Your task to perform on an android device: turn on data saver in the chrome app Image 0: 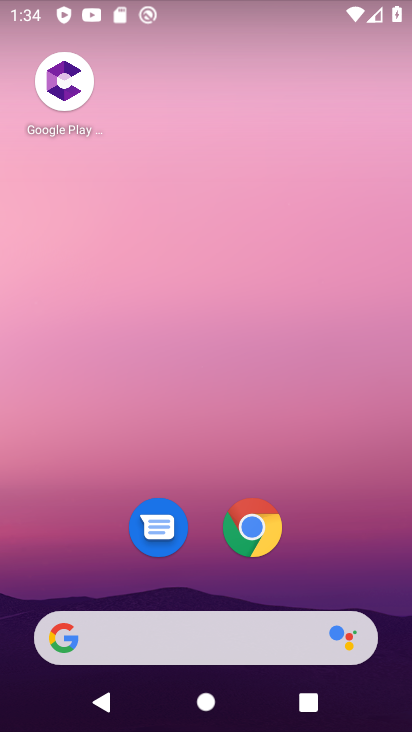
Step 0: drag from (344, 493) to (375, 69)
Your task to perform on an android device: turn on data saver in the chrome app Image 1: 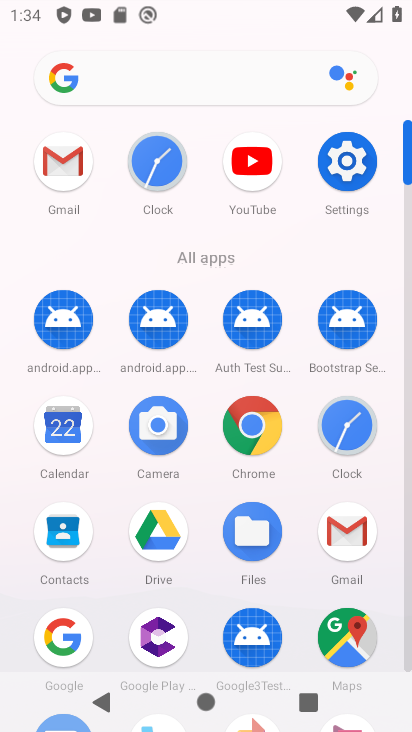
Step 1: click (246, 422)
Your task to perform on an android device: turn on data saver in the chrome app Image 2: 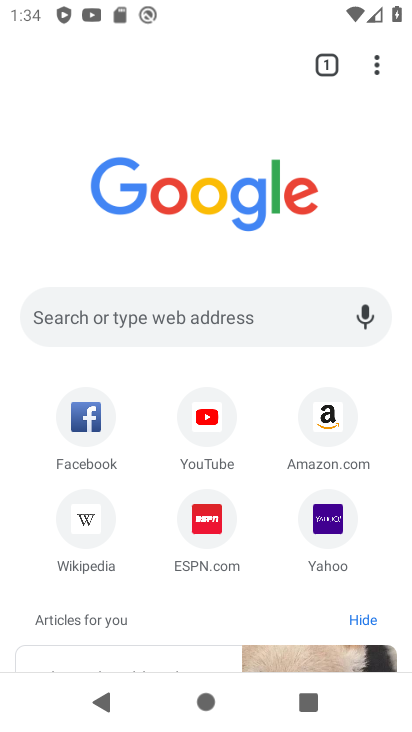
Step 2: drag from (372, 64) to (163, 550)
Your task to perform on an android device: turn on data saver in the chrome app Image 3: 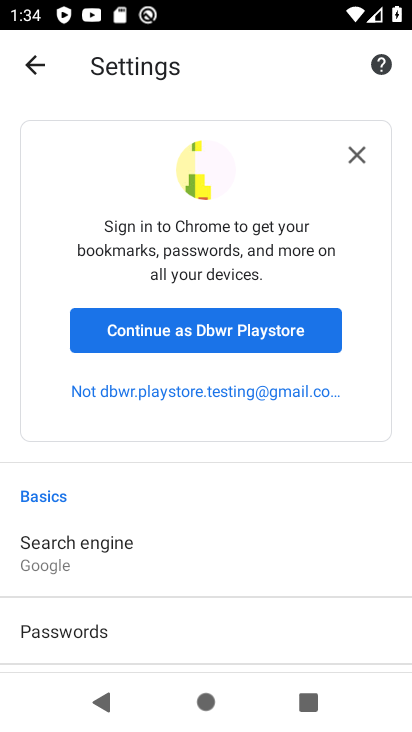
Step 3: drag from (176, 574) to (164, 181)
Your task to perform on an android device: turn on data saver in the chrome app Image 4: 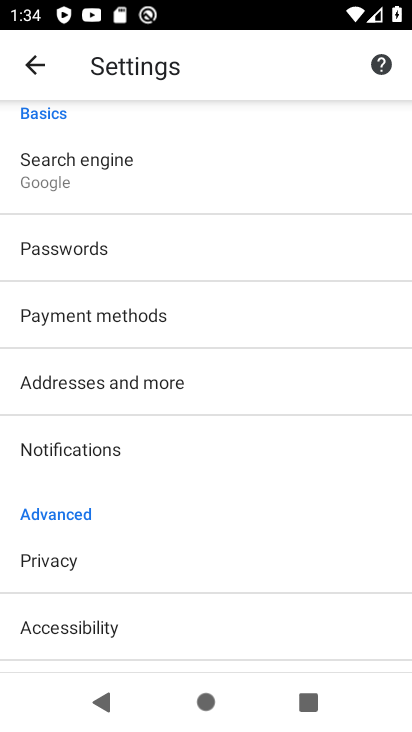
Step 4: drag from (211, 568) to (255, 207)
Your task to perform on an android device: turn on data saver in the chrome app Image 5: 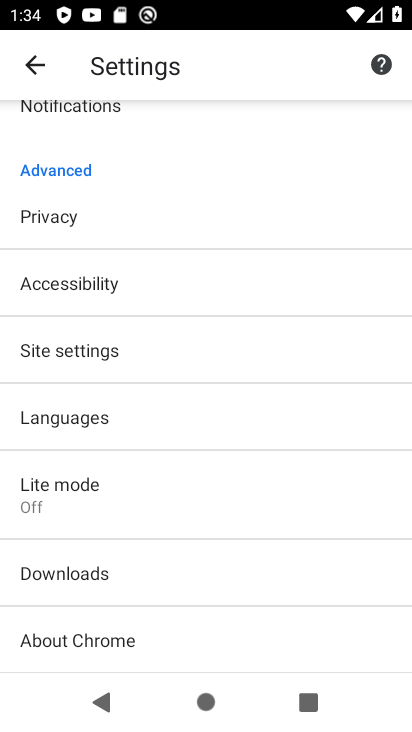
Step 5: click (161, 499)
Your task to perform on an android device: turn on data saver in the chrome app Image 6: 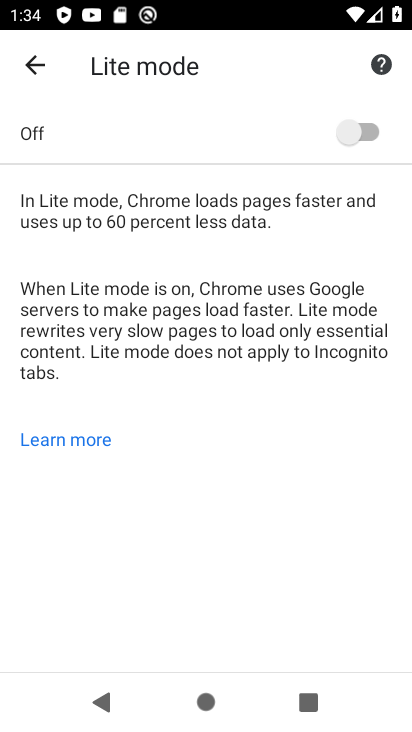
Step 6: click (359, 128)
Your task to perform on an android device: turn on data saver in the chrome app Image 7: 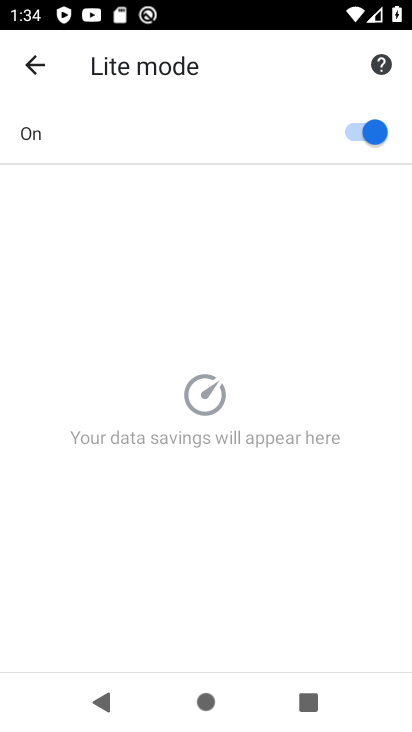
Step 7: task complete